Your task to perform on an android device: toggle notifications settings in the gmail app Image 0: 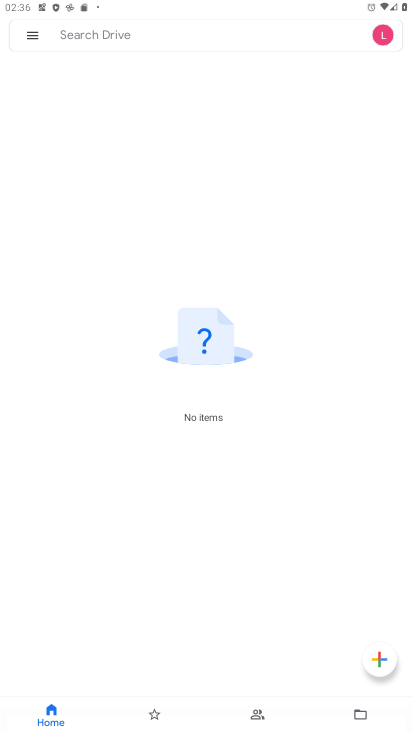
Step 0: press home button
Your task to perform on an android device: toggle notifications settings in the gmail app Image 1: 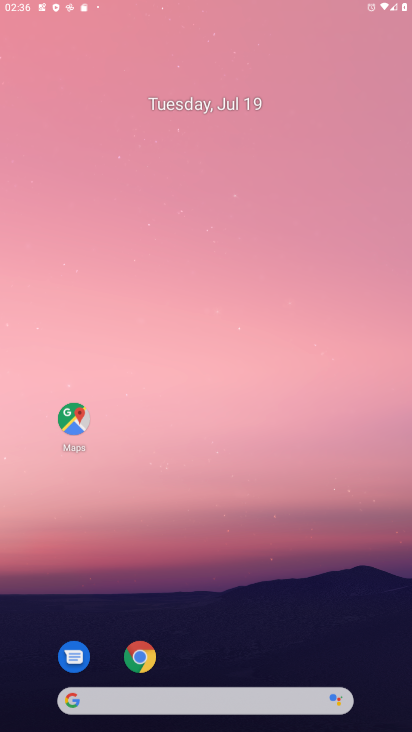
Step 1: drag from (210, 638) to (260, 119)
Your task to perform on an android device: toggle notifications settings in the gmail app Image 2: 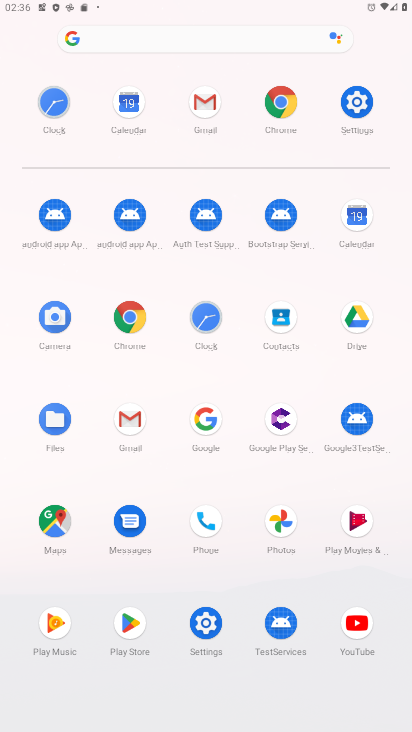
Step 2: click (120, 424)
Your task to perform on an android device: toggle notifications settings in the gmail app Image 3: 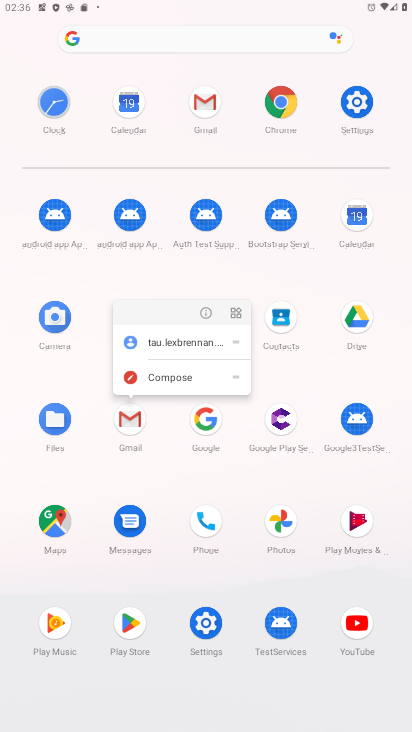
Step 3: click (204, 316)
Your task to perform on an android device: toggle notifications settings in the gmail app Image 4: 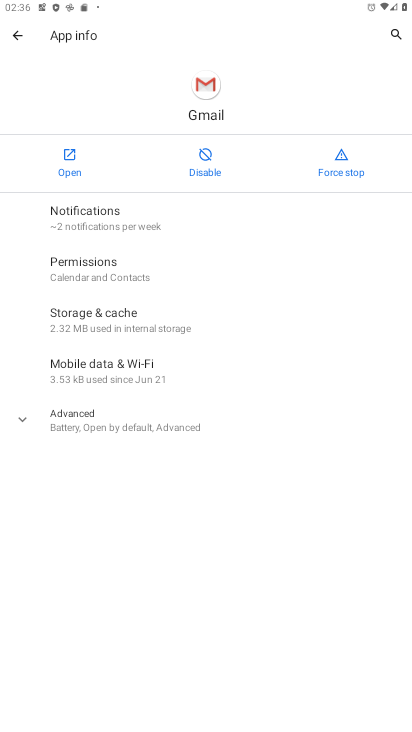
Step 4: click (82, 214)
Your task to perform on an android device: toggle notifications settings in the gmail app Image 5: 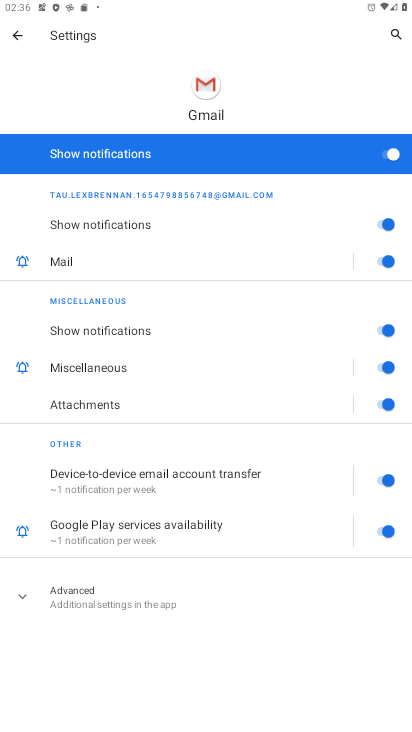
Step 5: click (213, 163)
Your task to perform on an android device: toggle notifications settings in the gmail app Image 6: 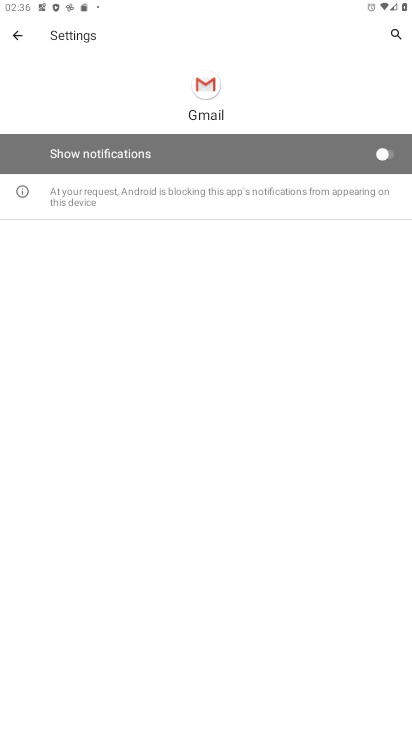
Step 6: task complete